Your task to perform on an android device: turn on the 24-hour format for clock Image 0: 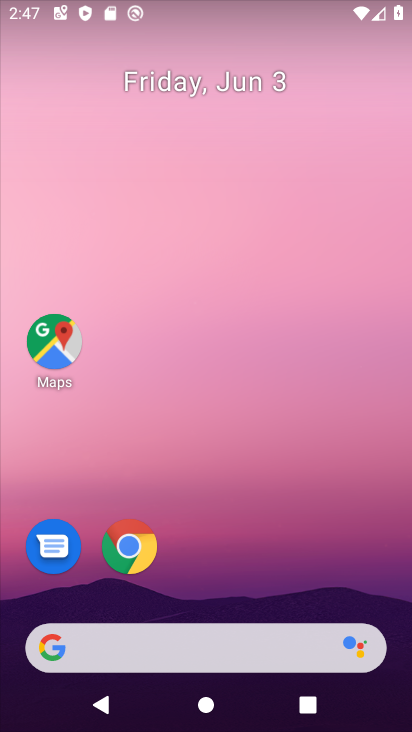
Step 0: drag from (267, 385) to (272, 94)
Your task to perform on an android device: turn on the 24-hour format for clock Image 1: 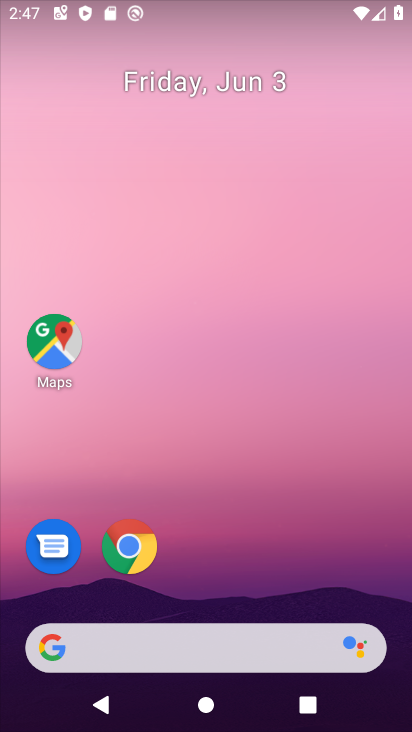
Step 1: drag from (303, 601) to (335, 15)
Your task to perform on an android device: turn on the 24-hour format for clock Image 2: 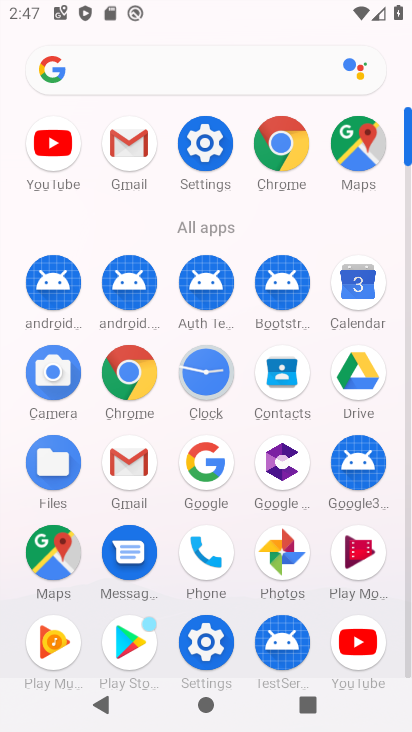
Step 2: click (223, 368)
Your task to perform on an android device: turn on the 24-hour format for clock Image 3: 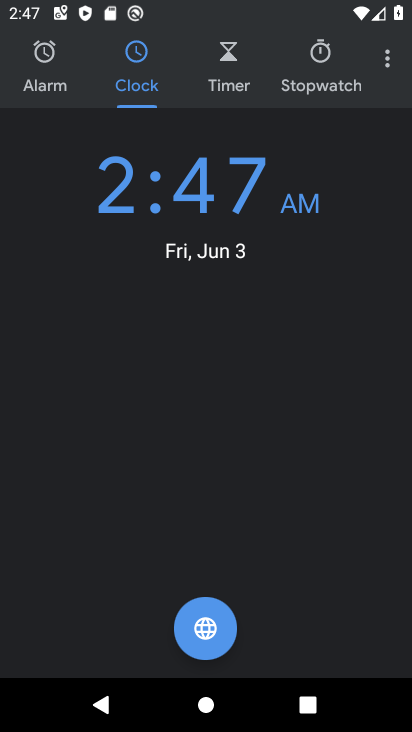
Step 3: click (386, 69)
Your task to perform on an android device: turn on the 24-hour format for clock Image 4: 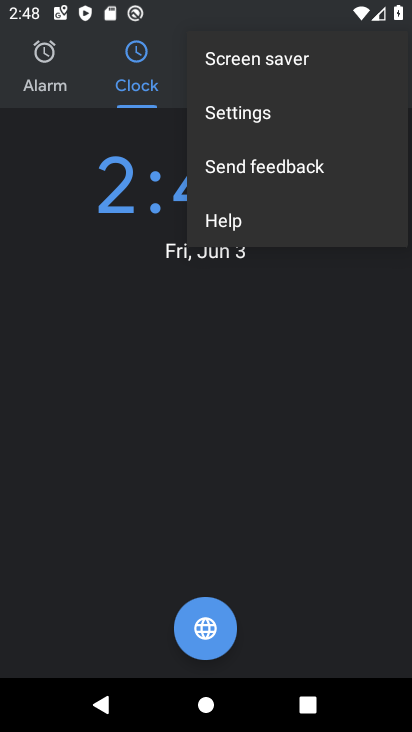
Step 4: click (257, 128)
Your task to perform on an android device: turn on the 24-hour format for clock Image 5: 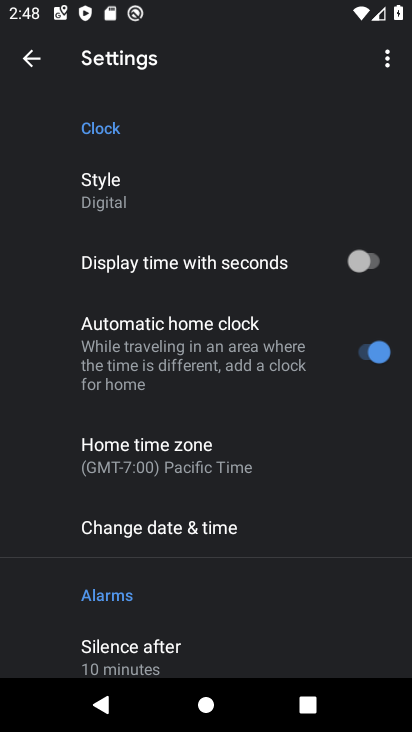
Step 5: drag from (173, 555) to (174, 326)
Your task to perform on an android device: turn on the 24-hour format for clock Image 6: 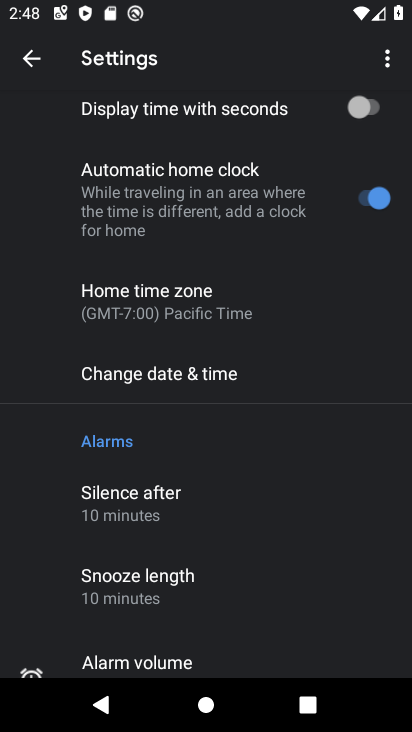
Step 6: click (130, 371)
Your task to perform on an android device: turn on the 24-hour format for clock Image 7: 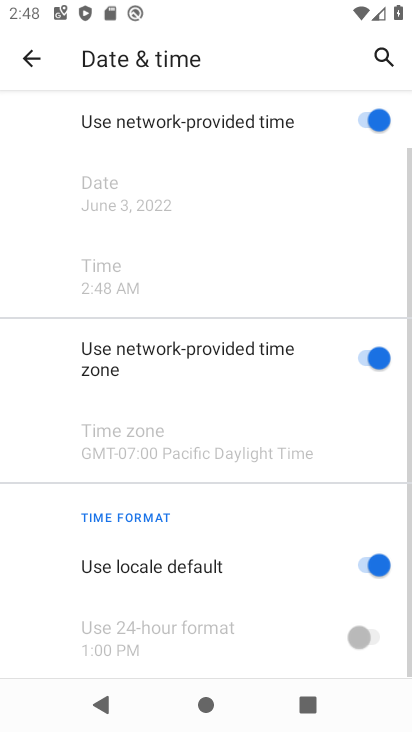
Step 7: drag from (165, 584) to (213, 356)
Your task to perform on an android device: turn on the 24-hour format for clock Image 8: 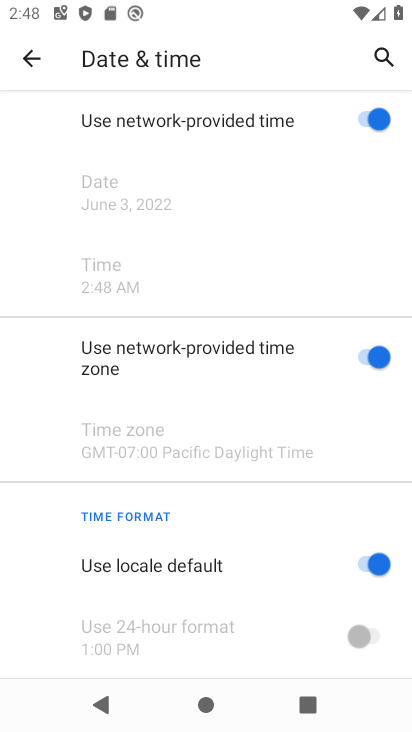
Step 8: click (361, 552)
Your task to perform on an android device: turn on the 24-hour format for clock Image 9: 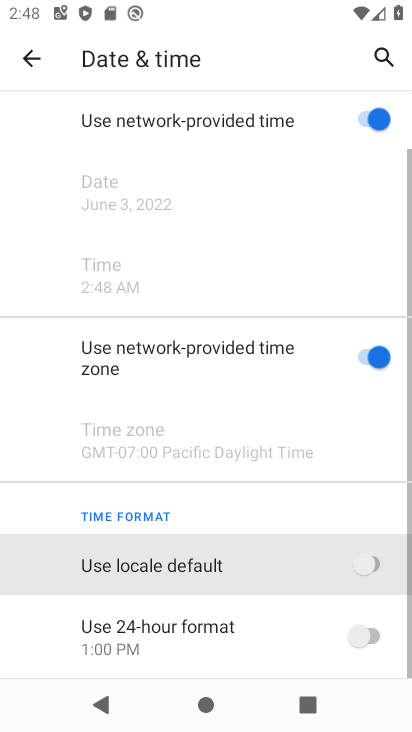
Step 9: click (368, 636)
Your task to perform on an android device: turn on the 24-hour format for clock Image 10: 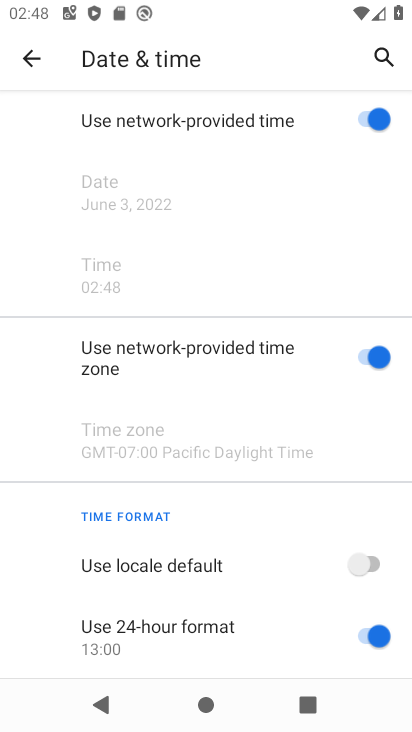
Step 10: task complete